Your task to perform on an android device: Clear all items from cart on amazon. Add usb-b to the cart on amazon, then select checkout. Image 0: 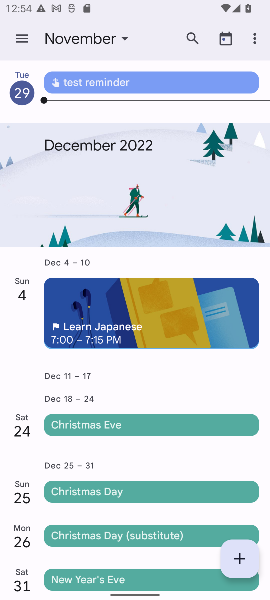
Step 0: press home button
Your task to perform on an android device: Clear all items from cart on amazon. Add usb-b to the cart on amazon, then select checkout. Image 1: 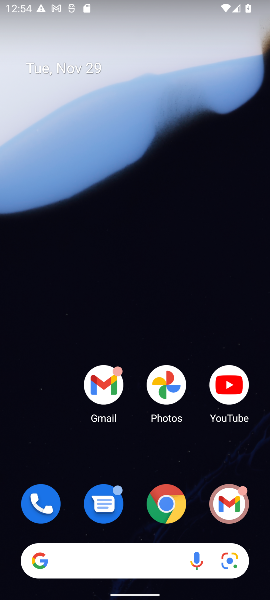
Step 1: click (170, 500)
Your task to perform on an android device: Clear all items from cart on amazon. Add usb-b to the cart on amazon, then select checkout. Image 2: 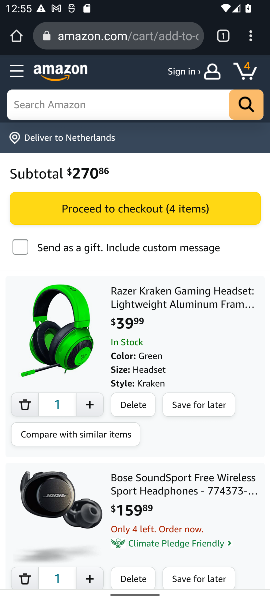
Step 2: click (132, 411)
Your task to perform on an android device: Clear all items from cart on amazon. Add usb-b to the cart on amazon, then select checkout. Image 3: 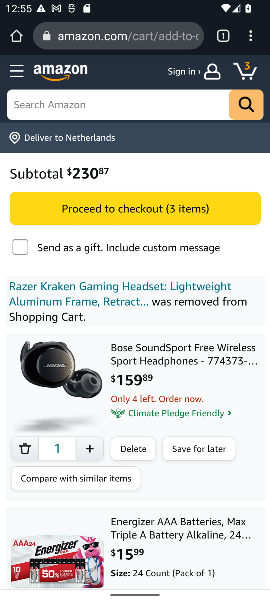
Step 3: click (135, 445)
Your task to perform on an android device: Clear all items from cart on amazon. Add usb-b to the cart on amazon, then select checkout. Image 4: 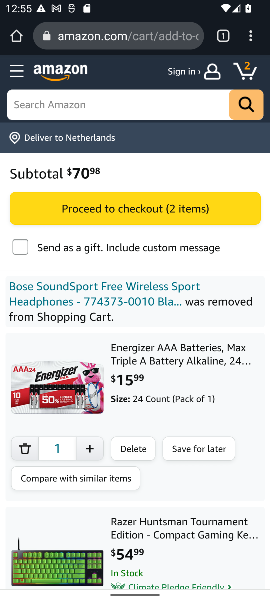
Step 4: click (133, 451)
Your task to perform on an android device: Clear all items from cart on amazon. Add usb-b to the cart on amazon, then select checkout. Image 5: 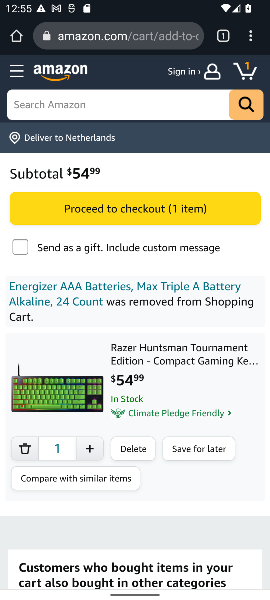
Step 5: click (133, 451)
Your task to perform on an android device: Clear all items from cart on amazon. Add usb-b to the cart on amazon, then select checkout. Image 6: 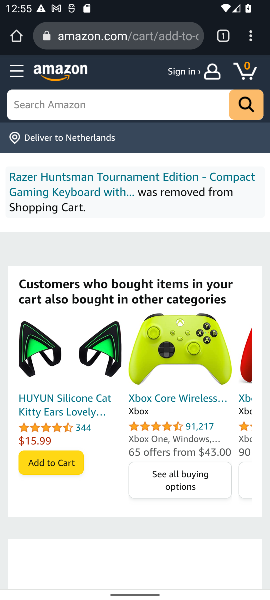
Step 6: click (28, 107)
Your task to perform on an android device: Clear all items from cart on amazon. Add usb-b to the cart on amazon, then select checkout. Image 7: 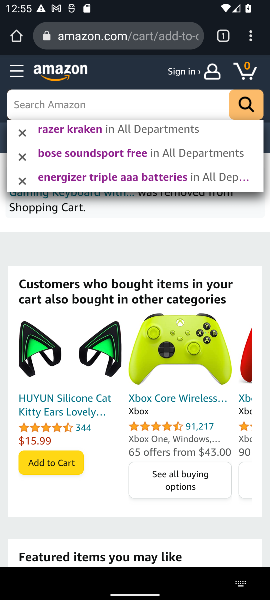
Step 7: type "usb-b "
Your task to perform on an android device: Clear all items from cart on amazon. Add usb-b to the cart on amazon, then select checkout. Image 8: 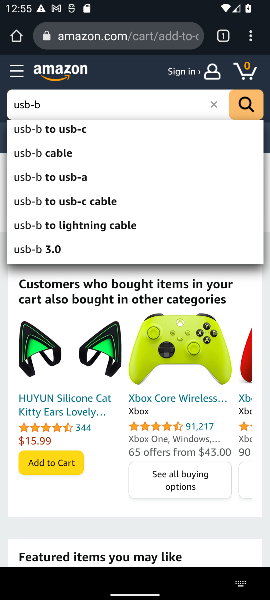
Step 8: click (23, 155)
Your task to perform on an android device: Clear all items from cart on amazon. Add usb-b to the cart on amazon, then select checkout. Image 9: 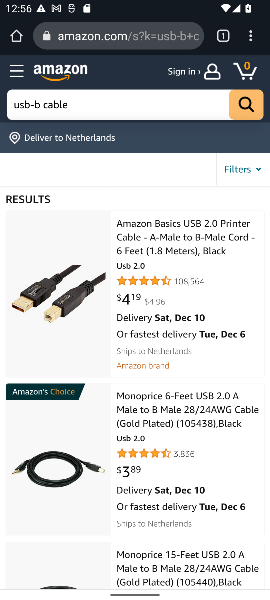
Step 9: task complete